Your task to perform on an android device: see tabs open on other devices in the chrome app Image 0: 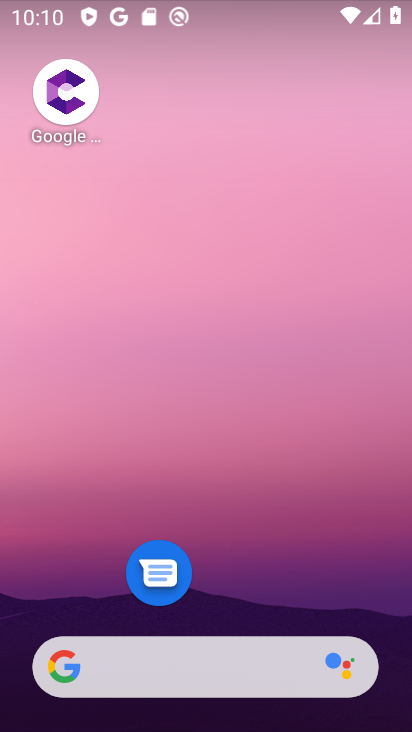
Step 0: drag from (223, 627) to (200, 63)
Your task to perform on an android device: see tabs open on other devices in the chrome app Image 1: 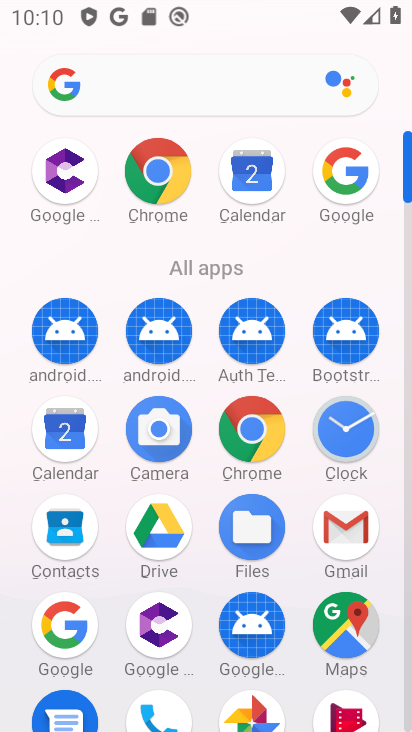
Step 1: click (251, 441)
Your task to perform on an android device: see tabs open on other devices in the chrome app Image 2: 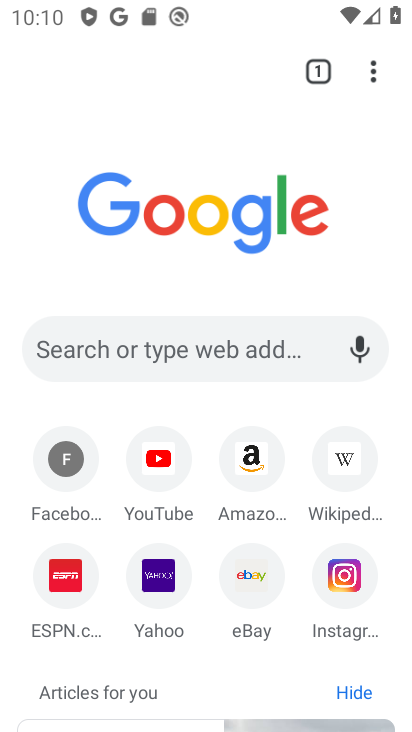
Step 2: click (371, 70)
Your task to perform on an android device: see tabs open on other devices in the chrome app Image 3: 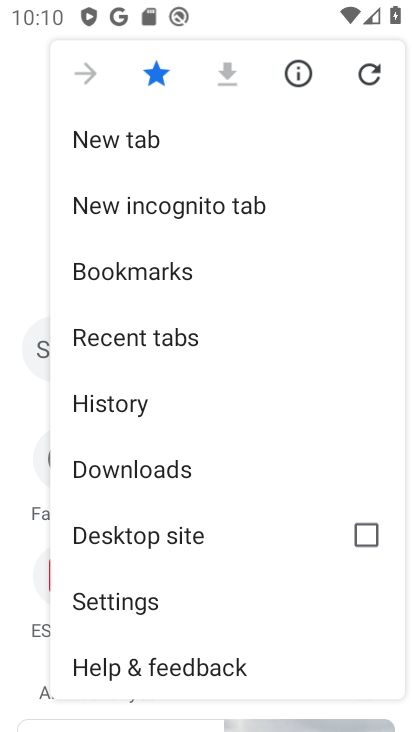
Step 3: click (125, 396)
Your task to perform on an android device: see tabs open on other devices in the chrome app Image 4: 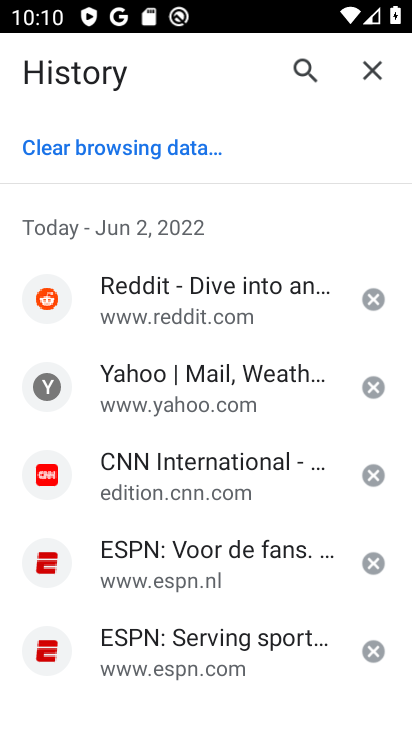
Step 4: task complete